Your task to perform on an android device: When is my next appointment? Image 0: 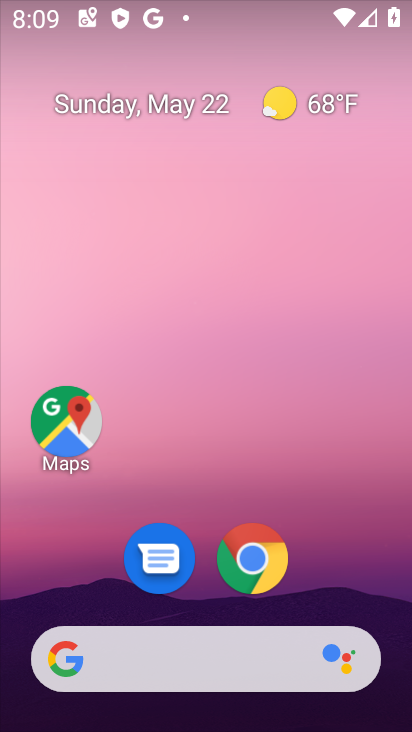
Step 0: drag from (323, 618) to (294, 386)
Your task to perform on an android device: When is my next appointment? Image 1: 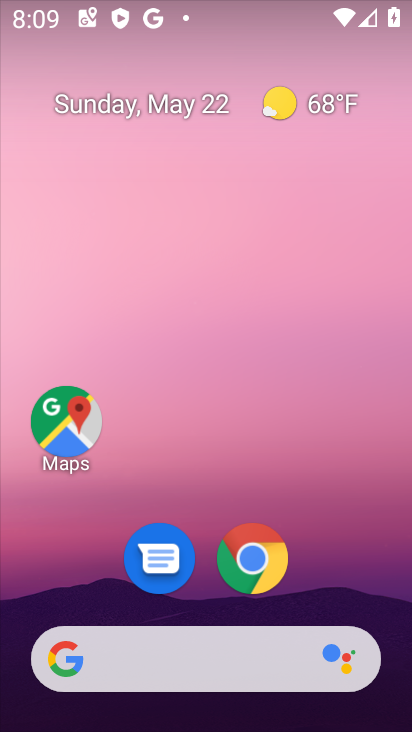
Step 1: drag from (246, 598) to (263, 270)
Your task to perform on an android device: When is my next appointment? Image 2: 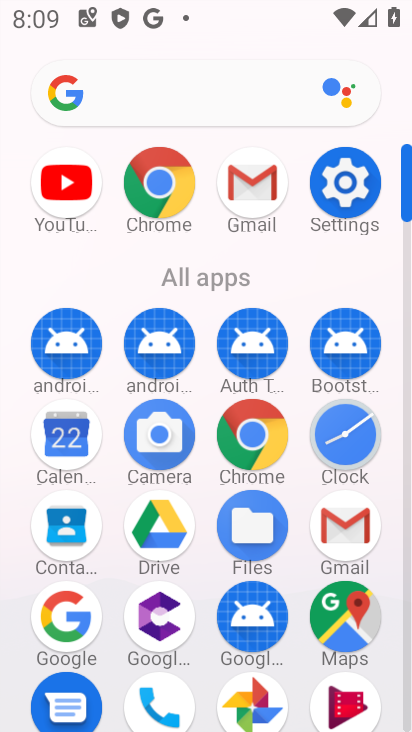
Step 2: click (36, 423)
Your task to perform on an android device: When is my next appointment? Image 3: 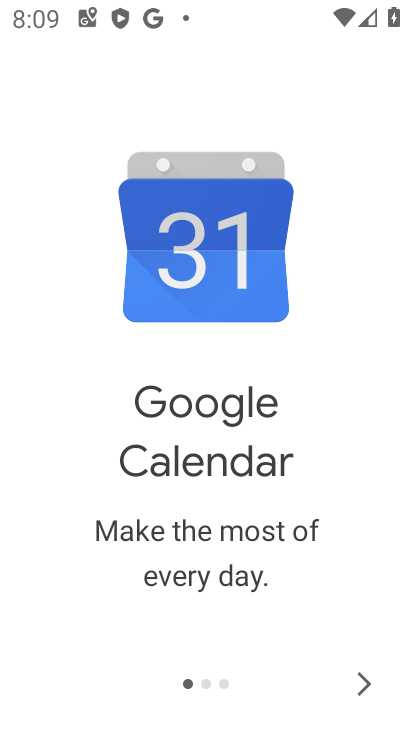
Step 3: click (361, 681)
Your task to perform on an android device: When is my next appointment? Image 4: 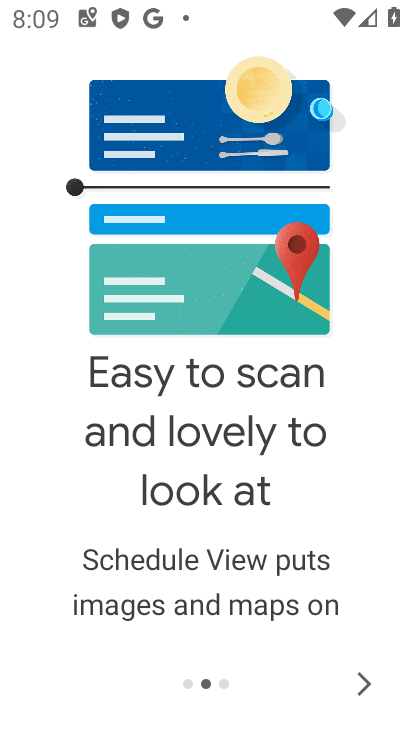
Step 4: click (361, 681)
Your task to perform on an android device: When is my next appointment? Image 5: 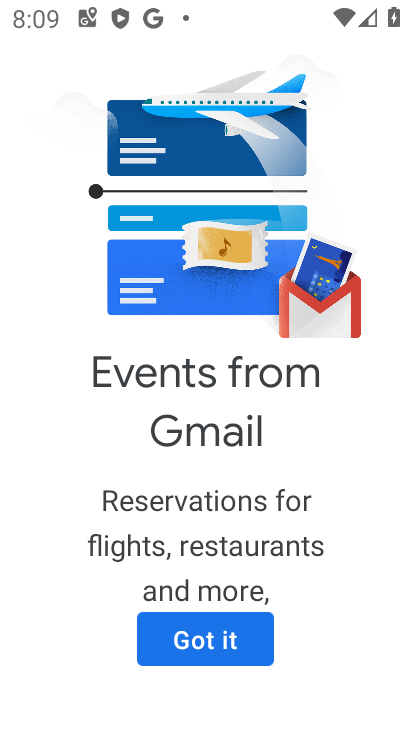
Step 5: click (361, 681)
Your task to perform on an android device: When is my next appointment? Image 6: 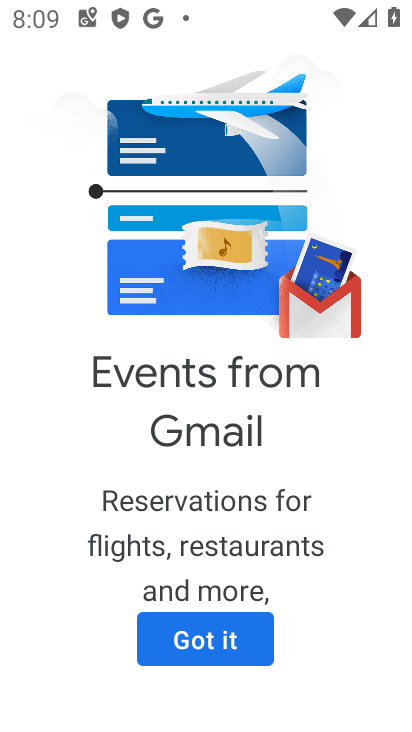
Step 6: click (218, 633)
Your task to perform on an android device: When is my next appointment? Image 7: 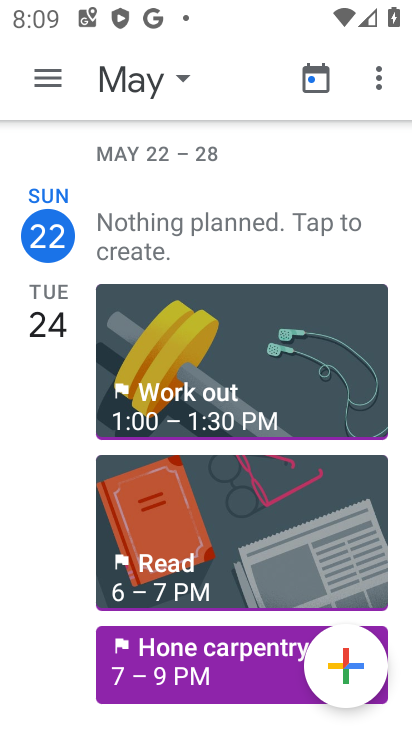
Step 7: click (55, 85)
Your task to perform on an android device: When is my next appointment? Image 8: 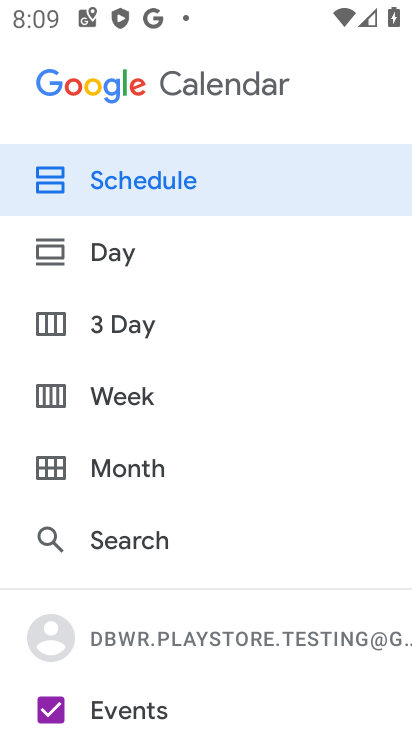
Step 8: drag from (280, 643) to (302, 398)
Your task to perform on an android device: When is my next appointment? Image 9: 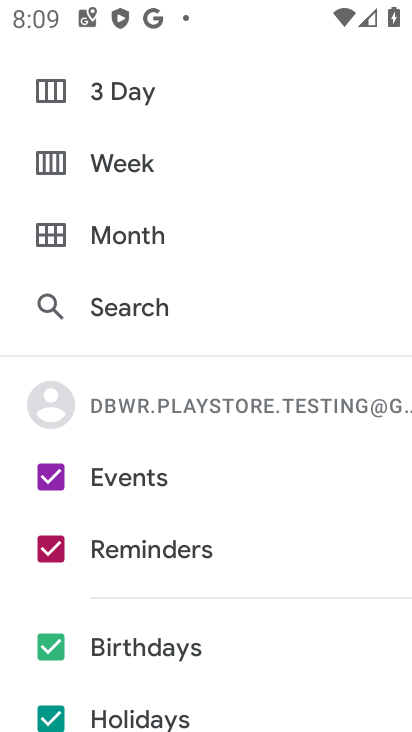
Step 9: click (162, 223)
Your task to perform on an android device: When is my next appointment? Image 10: 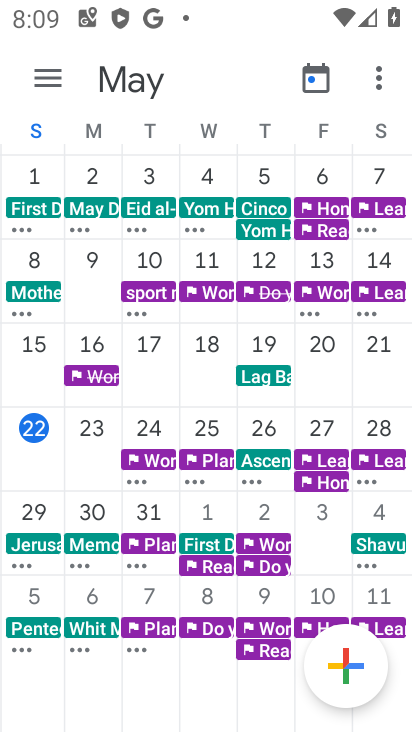
Step 10: click (137, 426)
Your task to perform on an android device: When is my next appointment? Image 11: 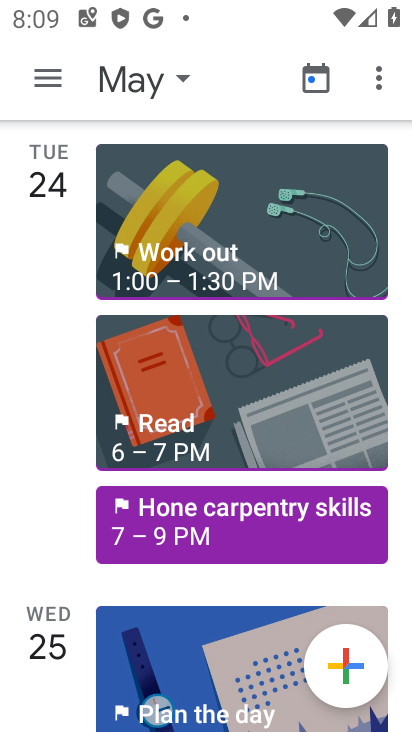
Step 11: task complete